Your task to perform on an android device: What is the news today? Image 0: 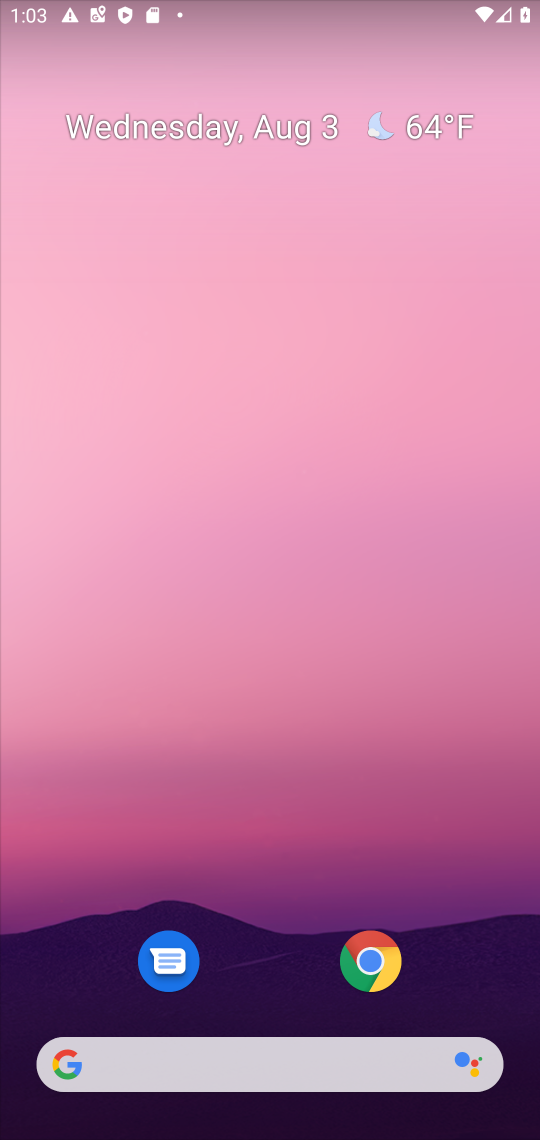
Step 0: press home button
Your task to perform on an android device: What is the news today? Image 1: 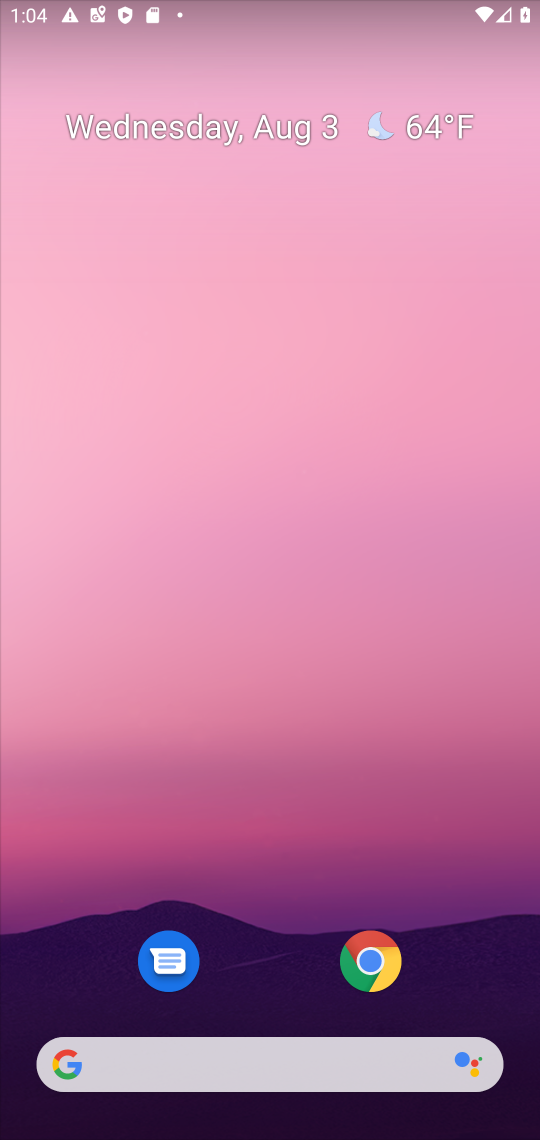
Step 1: click (197, 1054)
Your task to perform on an android device: What is the news today? Image 2: 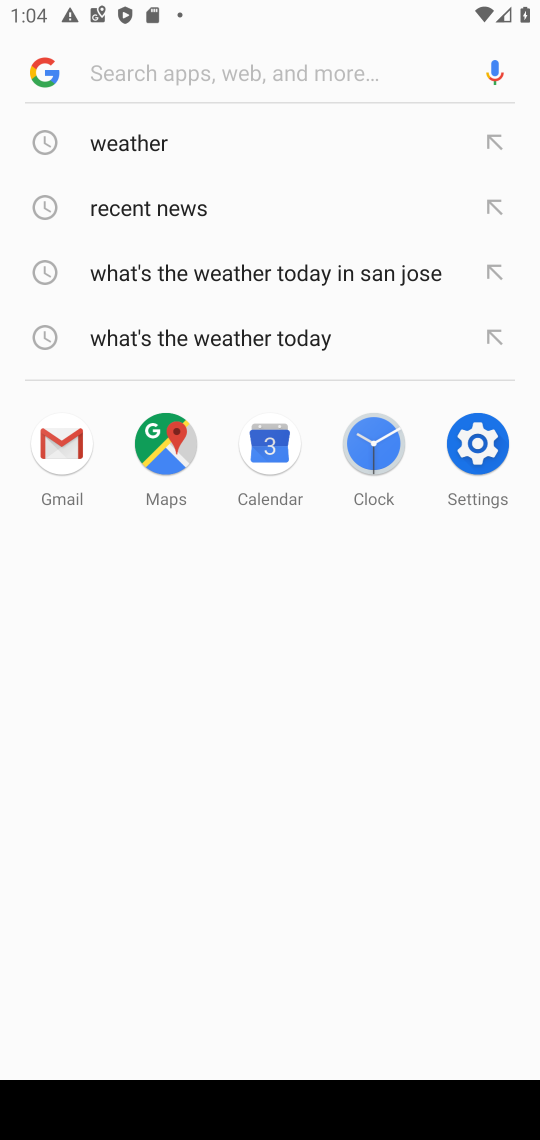
Step 2: type "new"
Your task to perform on an android device: What is the news today? Image 3: 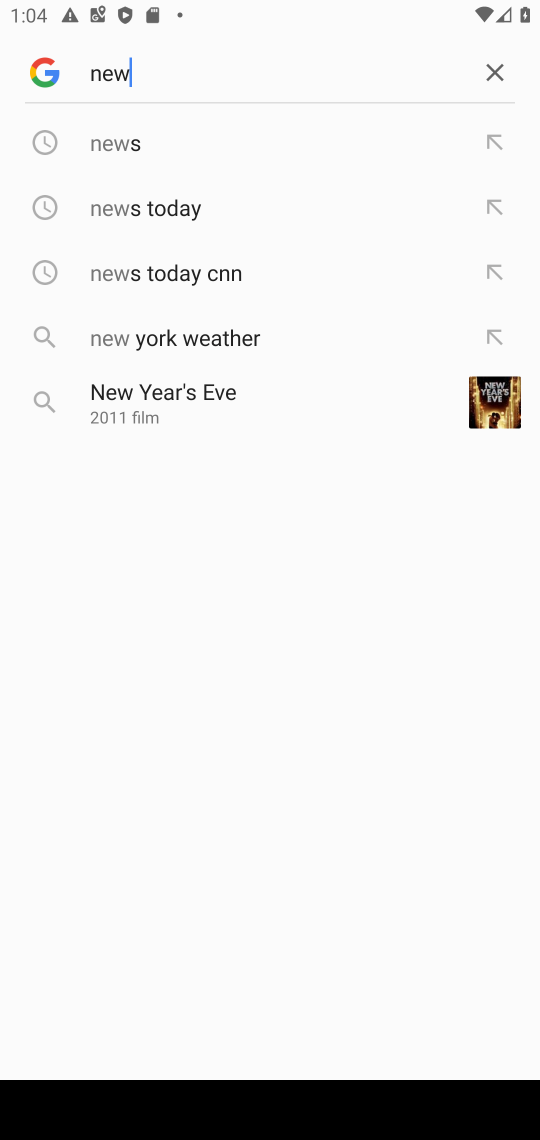
Step 3: click (123, 209)
Your task to perform on an android device: What is the news today? Image 4: 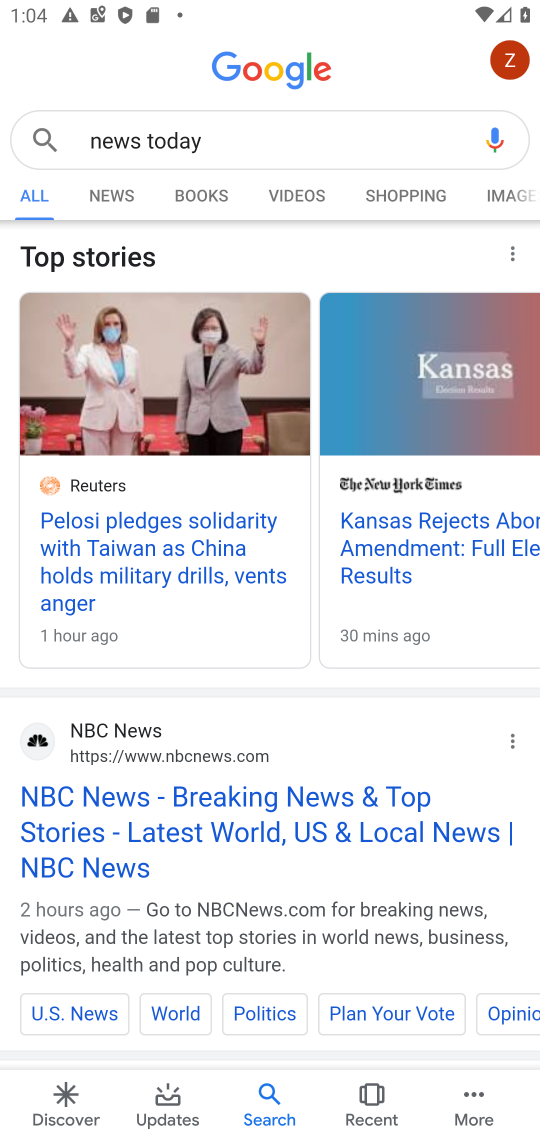
Step 4: drag from (299, 751) to (322, 468)
Your task to perform on an android device: What is the news today? Image 5: 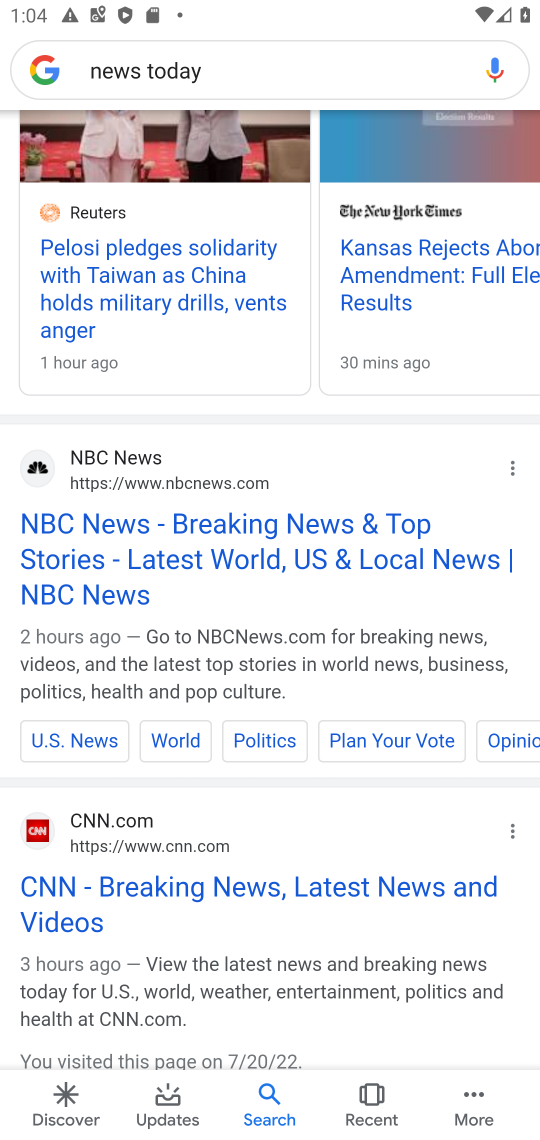
Step 5: drag from (184, 443) to (165, 732)
Your task to perform on an android device: What is the news today? Image 6: 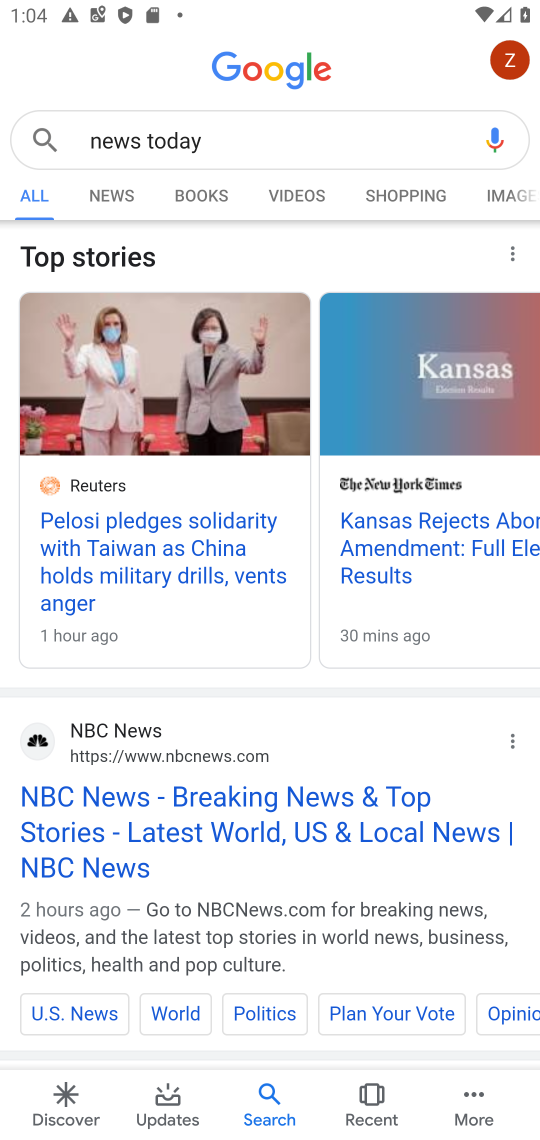
Step 6: click (113, 202)
Your task to perform on an android device: What is the news today? Image 7: 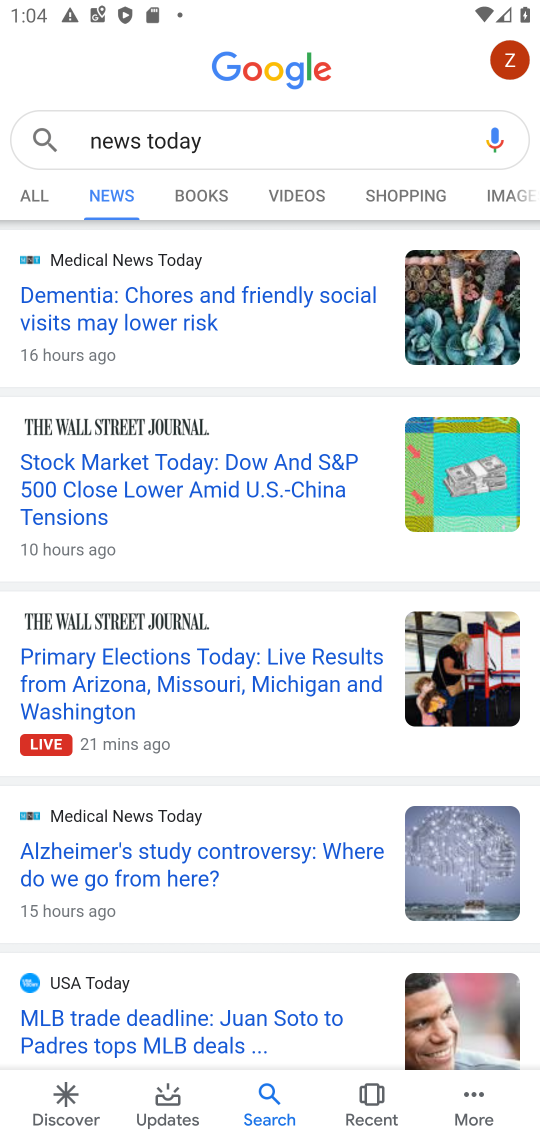
Step 7: drag from (205, 880) to (228, 458)
Your task to perform on an android device: What is the news today? Image 8: 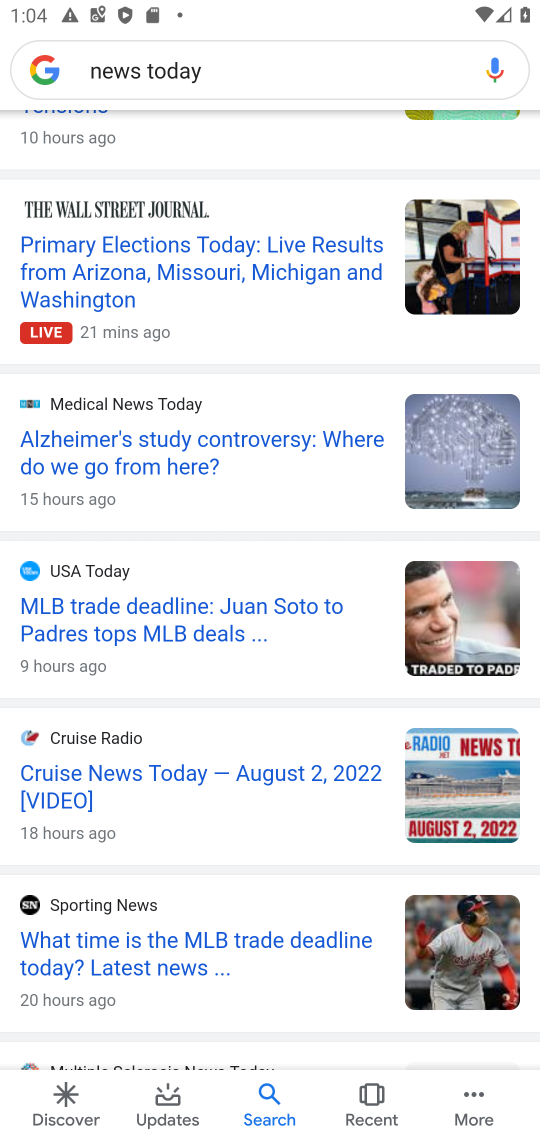
Step 8: click (166, 263)
Your task to perform on an android device: What is the news today? Image 9: 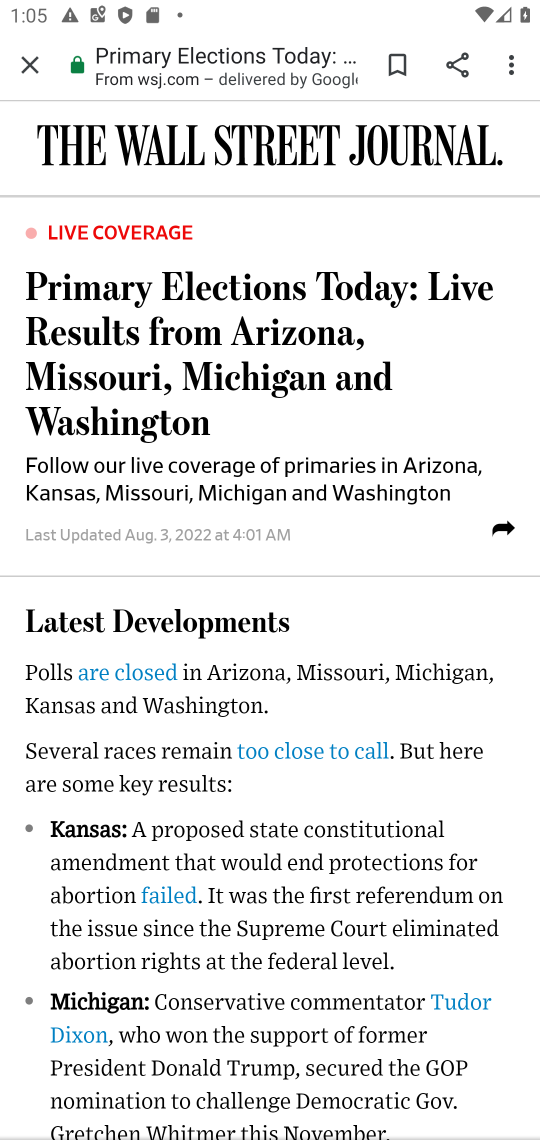
Step 9: task complete